Your task to perform on an android device: Open Maps and search for coffee Image 0: 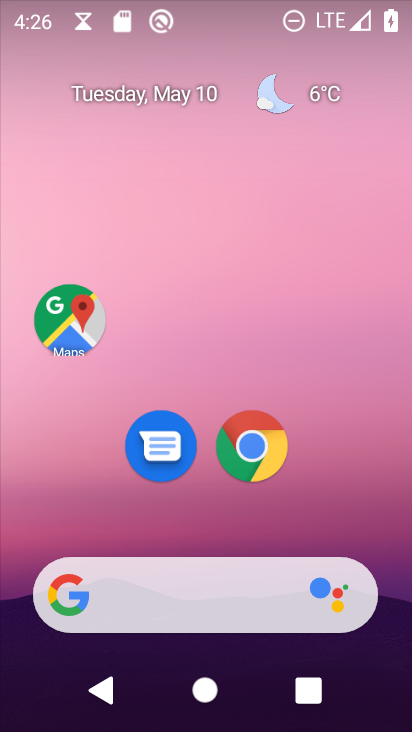
Step 0: click (79, 322)
Your task to perform on an android device: Open Maps and search for coffee Image 1: 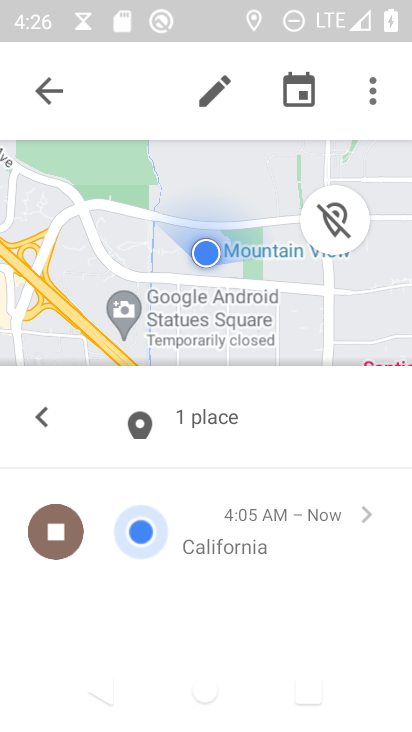
Step 1: click (53, 91)
Your task to perform on an android device: Open Maps and search for coffee Image 2: 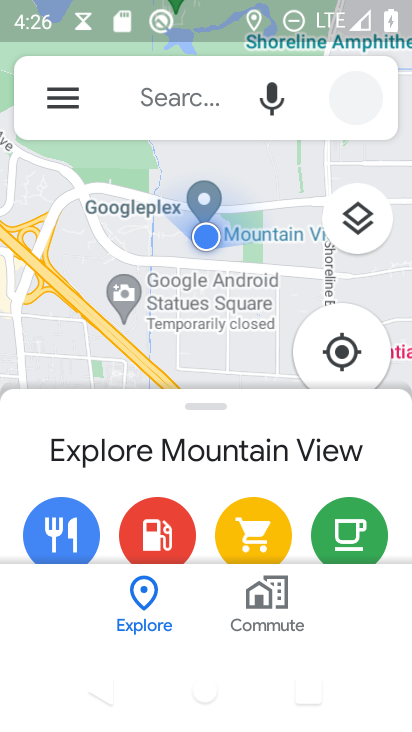
Step 2: click (165, 94)
Your task to perform on an android device: Open Maps and search for coffee Image 3: 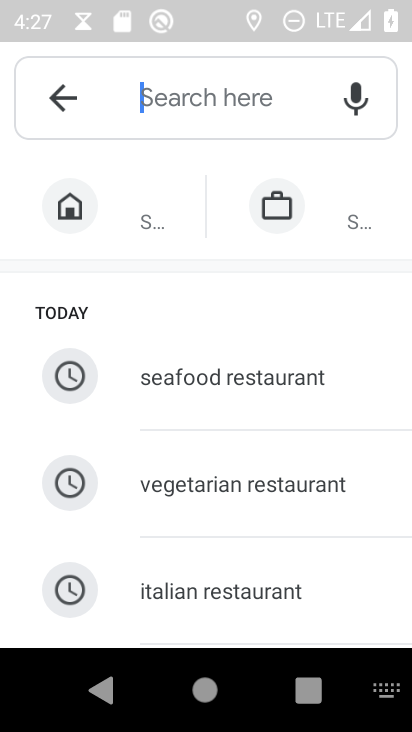
Step 3: type "coffee"
Your task to perform on an android device: Open Maps and search for coffee Image 4: 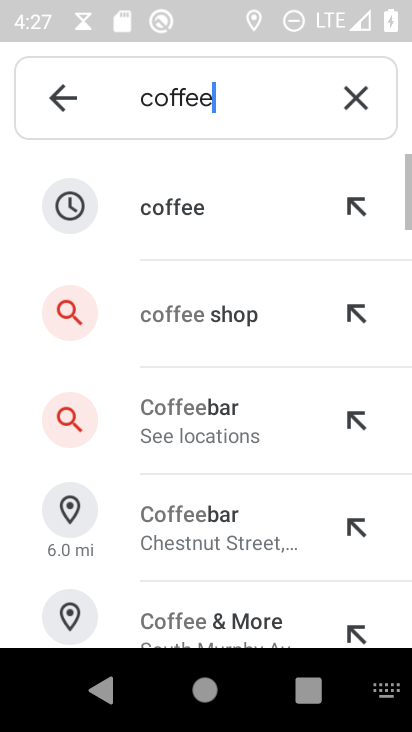
Step 4: click (160, 211)
Your task to perform on an android device: Open Maps and search for coffee Image 5: 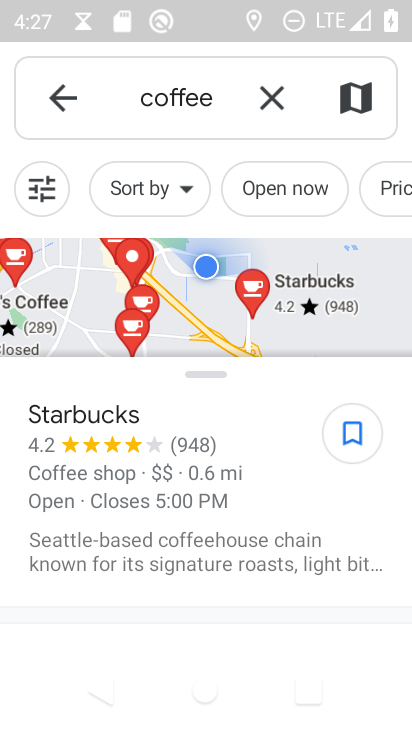
Step 5: task complete